Your task to perform on an android device: Open location settings Image 0: 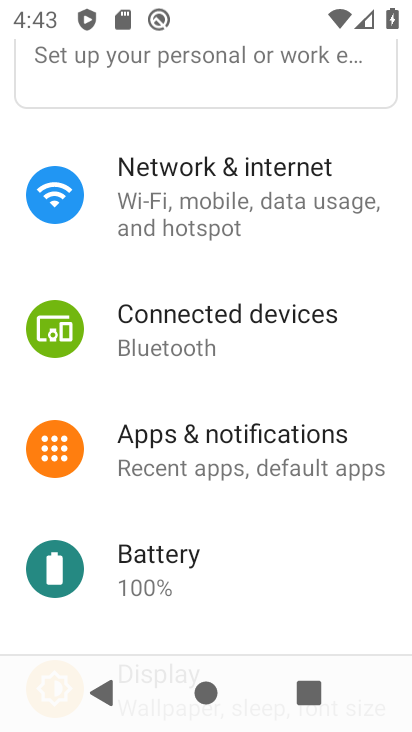
Step 0: press home button
Your task to perform on an android device: Open location settings Image 1: 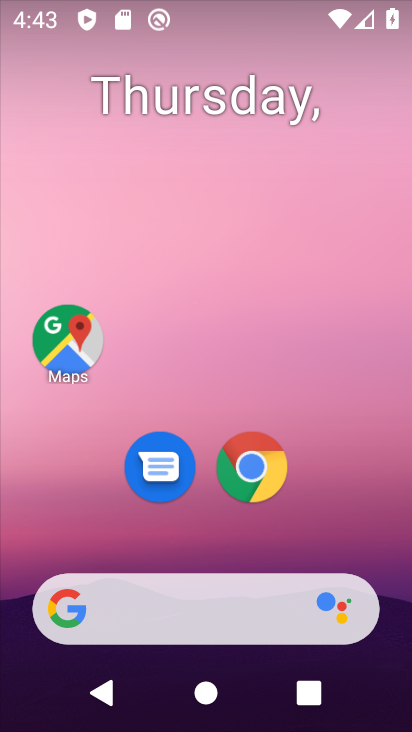
Step 1: drag from (376, 524) to (258, 46)
Your task to perform on an android device: Open location settings Image 2: 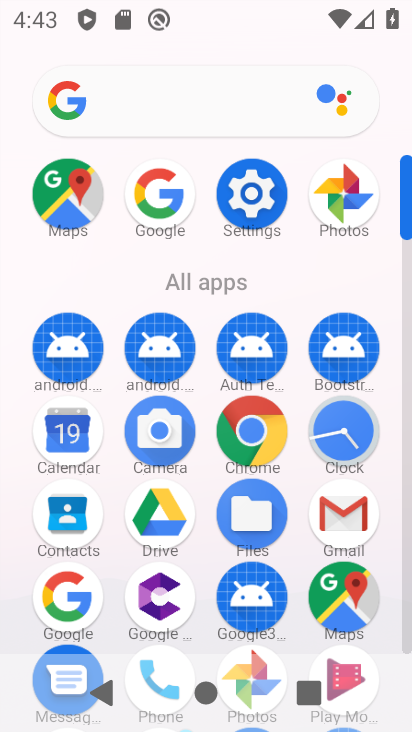
Step 2: click (276, 192)
Your task to perform on an android device: Open location settings Image 3: 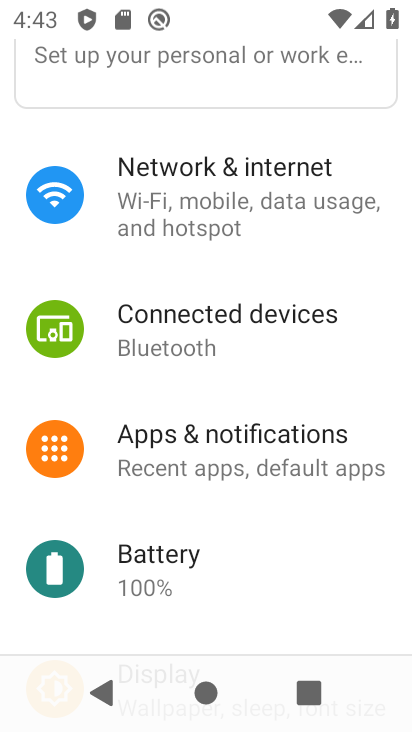
Step 3: drag from (286, 559) to (259, 273)
Your task to perform on an android device: Open location settings Image 4: 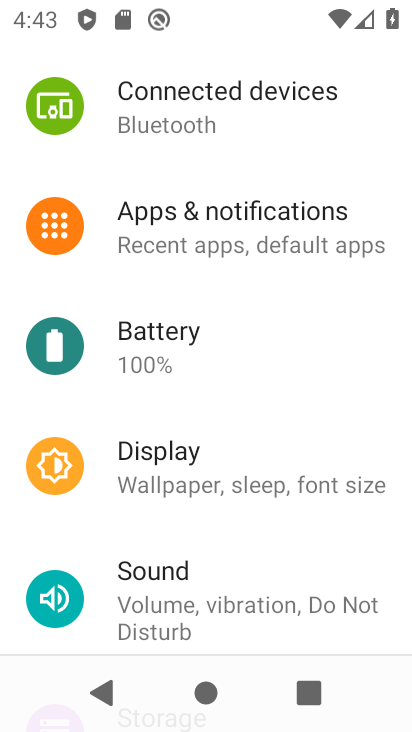
Step 4: drag from (314, 590) to (289, 103)
Your task to perform on an android device: Open location settings Image 5: 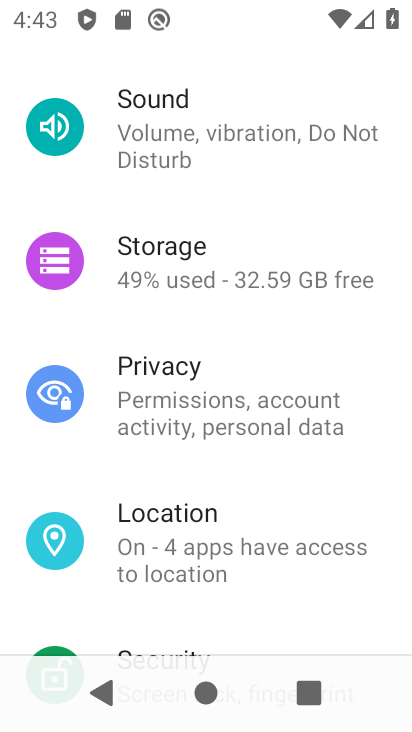
Step 5: click (307, 528)
Your task to perform on an android device: Open location settings Image 6: 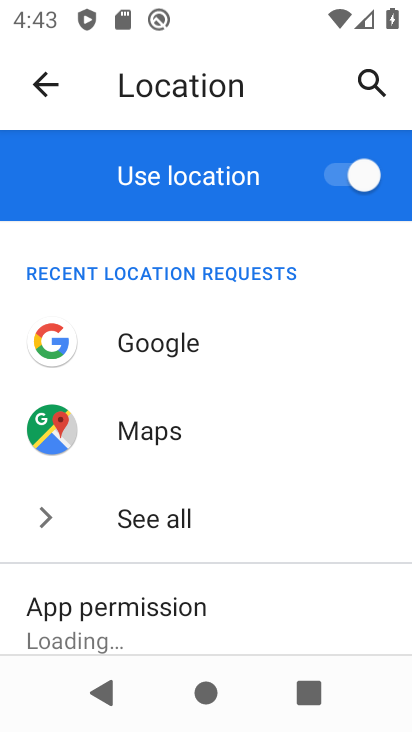
Step 6: task complete